Your task to perform on an android device: open app "Walmart Shopping & Grocery" (install if not already installed) and enter user name: "Hans@icloud.com" and password: "executing" Image 0: 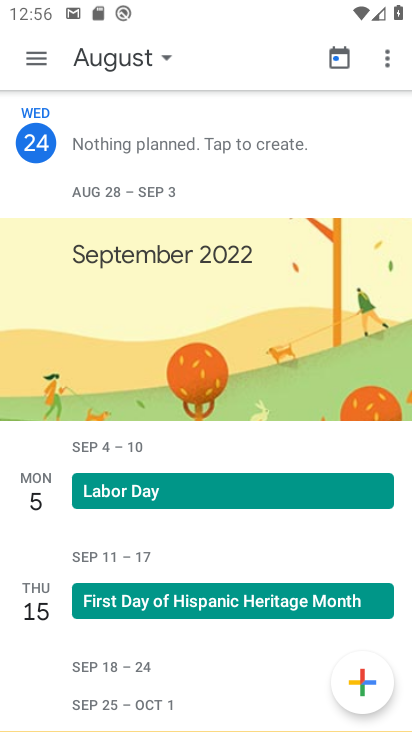
Step 0: press home button
Your task to perform on an android device: open app "Walmart Shopping & Grocery" (install if not already installed) and enter user name: "Hans@icloud.com" and password: "executing" Image 1: 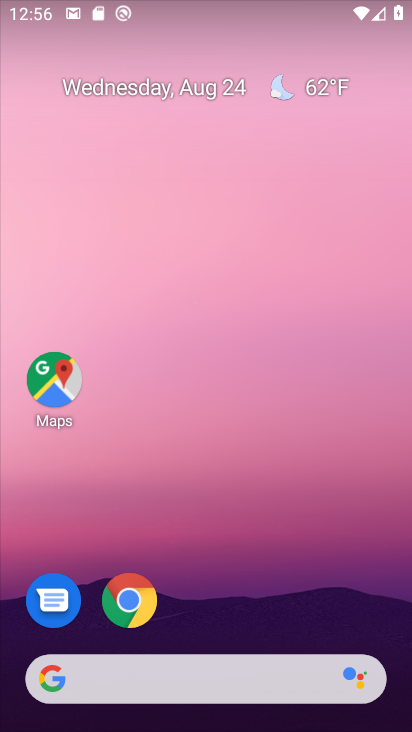
Step 1: drag from (267, 606) to (259, 43)
Your task to perform on an android device: open app "Walmart Shopping & Grocery" (install if not already installed) and enter user name: "Hans@icloud.com" and password: "executing" Image 2: 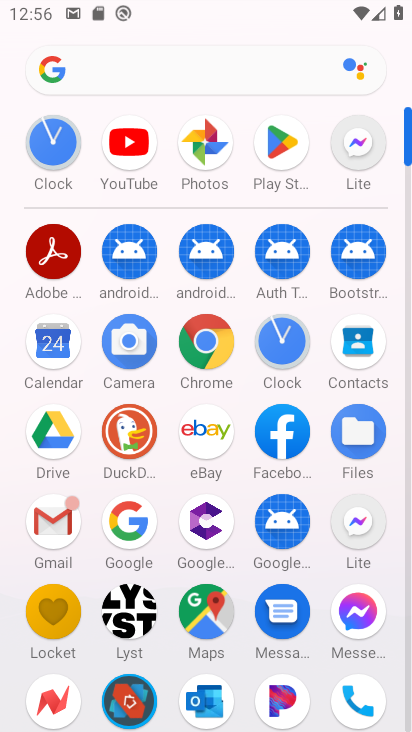
Step 2: click (274, 167)
Your task to perform on an android device: open app "Walmart Shopping & Grocery" (install if not already installed) and enter user name: "Hans@icloud.com" and password: "executing" Image 3: 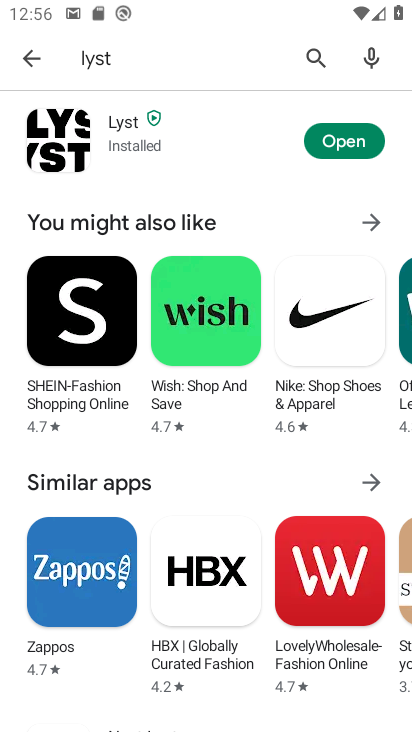
Step 3: click (328, 55)
Your task to perform on an android device: open app "Walmart Shopping & Grocery" (install if not already installed) and enter user name: "Hans@icloud.com" and password: "executing" Image 4: 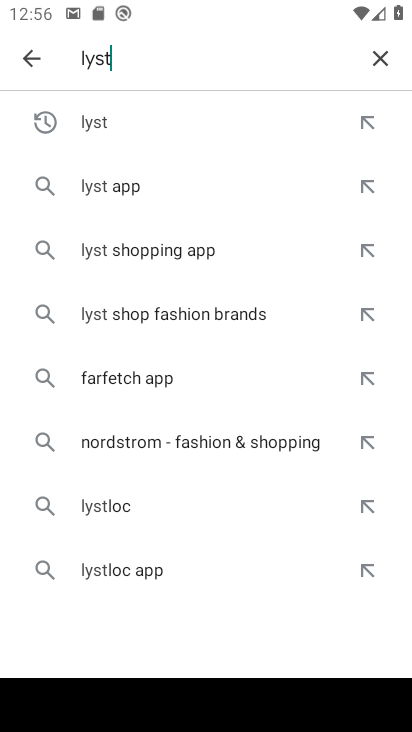
Step 4: click (366, 55)
Your task to perform on an android device: open app "Walmart Shopping & Grocery" (install if not already installed) and enter user name: "Hans@icloud.com" and password: "executing" Image 5: 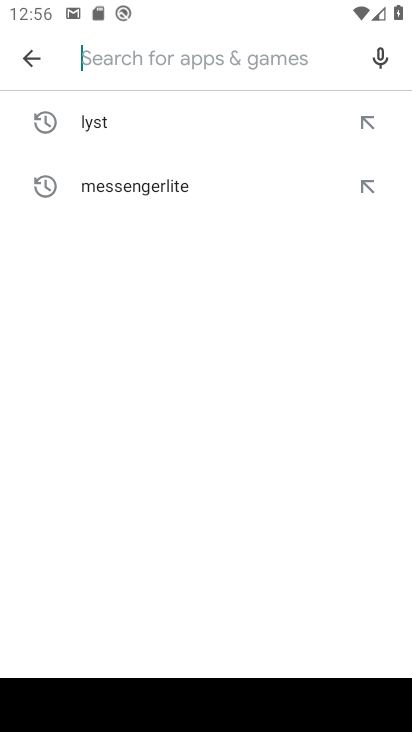
Step 5: type "walmart"
Your task to perform on an android device: open app "Walmart Shopping & Grocery" (install if not already installed) and enter user name: "Hans@icloud.com" and password: "executing" Image 6: 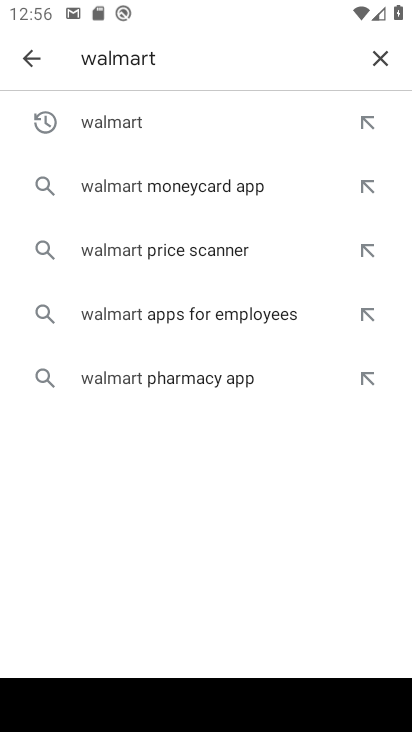
Step 6: click (113, 113)
Your task to perform on an android device: open app "Walmart Shopping & Grocery" (install if not already installed) and enter user name: "Hans@icloud.com" and password: "executing" Image 7: 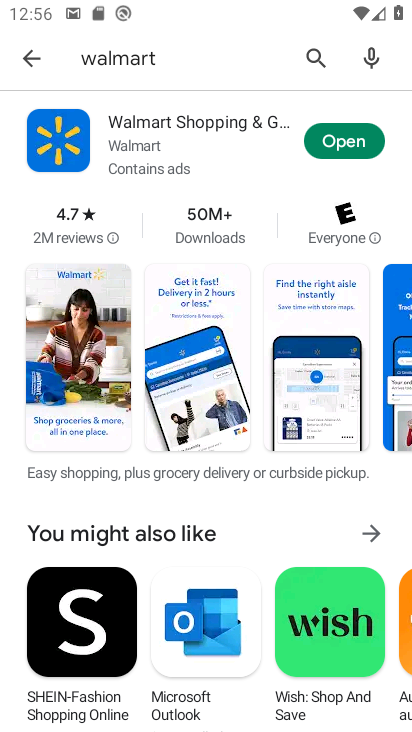
Step 7: click (344, 148)
Your task to perform on an android device: open app "Walmart Shopping & Grocery" (install if not already installed) and enter user name: "Hans@icloud.com" and password: "executing" Image 8: 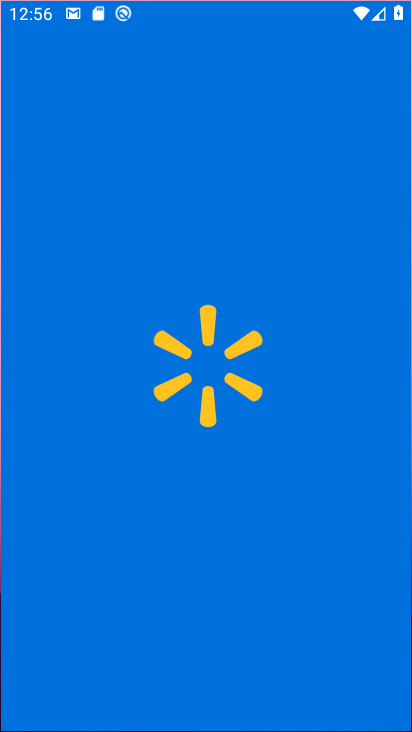
Step 8: task complete